Your task to perform on an android device: See recent photos Image 0: 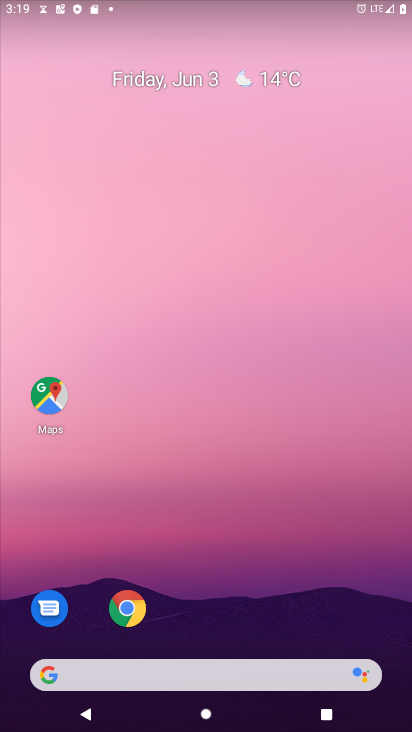
Step 0: drag from (207, 671) to (252, 153)
Your task to perform on an android device: See recent photos Image 1: 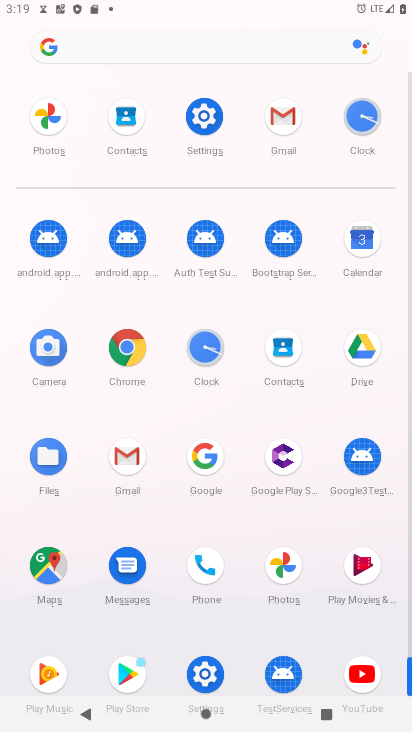
Step 1: click (284, 575)
Your task to perform on an android device: See recent photos Image 2: 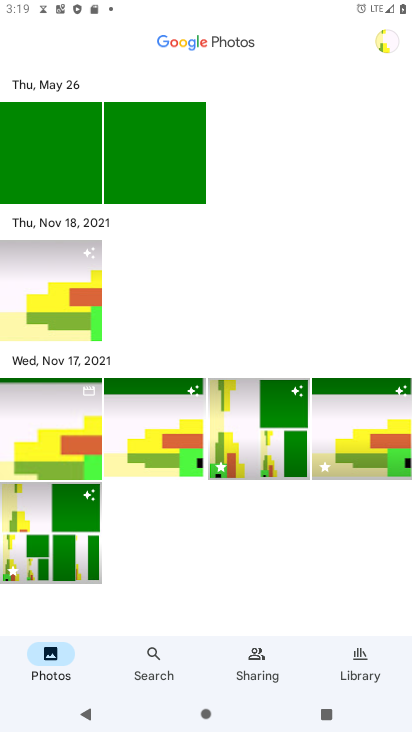
Step 2: task complete